Your task to perform on an android device: Go to privacy settings Image 0: 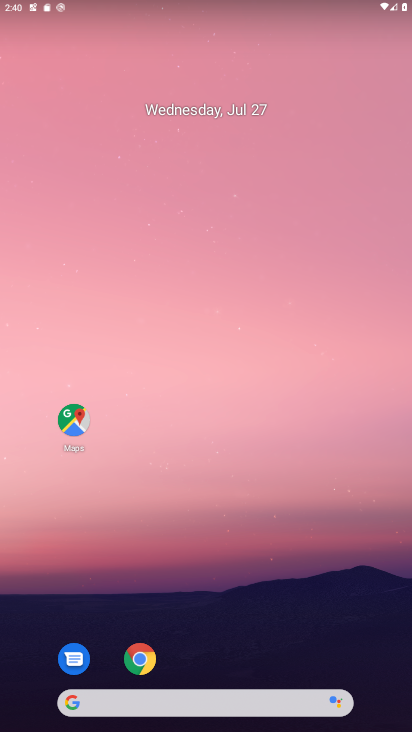
Step 0: drag from (253, 649) to (232, 111)
Your task to perform on an android device: Go to privacy settings Image 1: 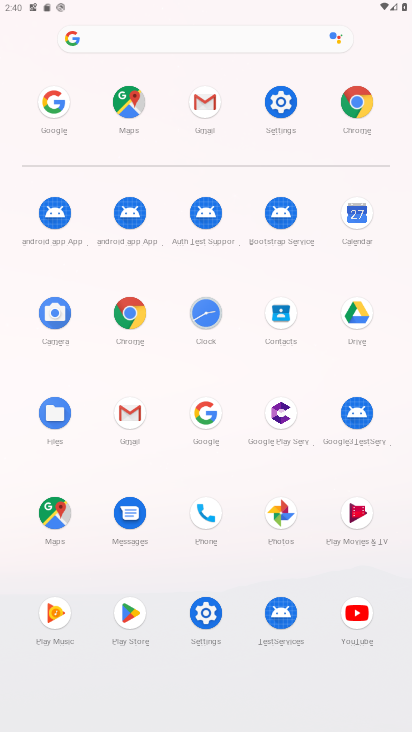
Step 1: click (272, 91)
Your task to perform on an android device: Go to privacy settings Image 2: 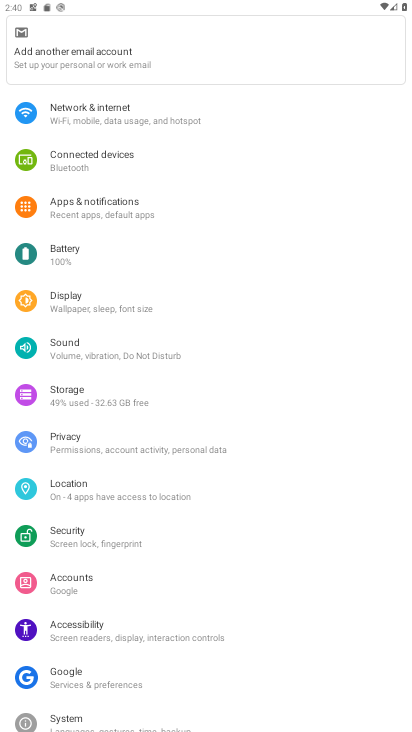
Step 2: click (59, 443)
Your task to perform on an android device: Go to privacy settings Image 3: 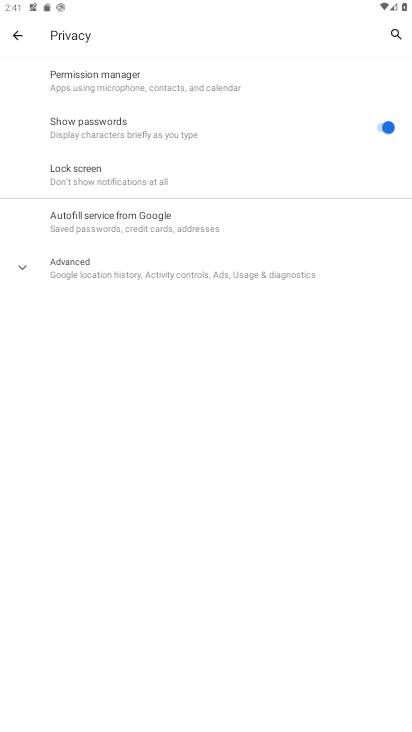
Step 3: task complete